Your task to perform on an android device: What's the weather? Image 0: 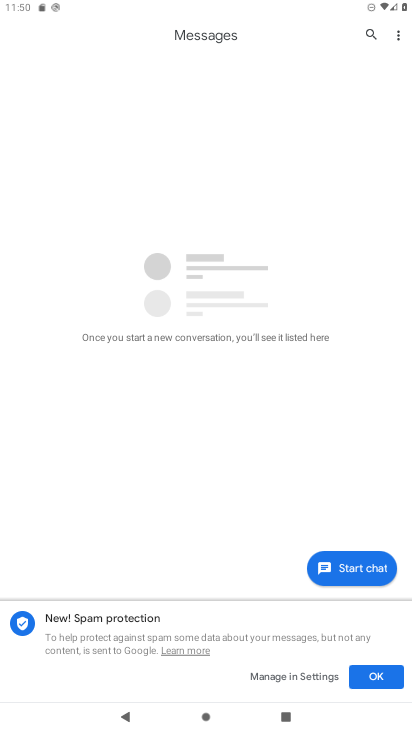
Step 0: press home button
Your task to perform on an android device: What's the weather? Image 1: 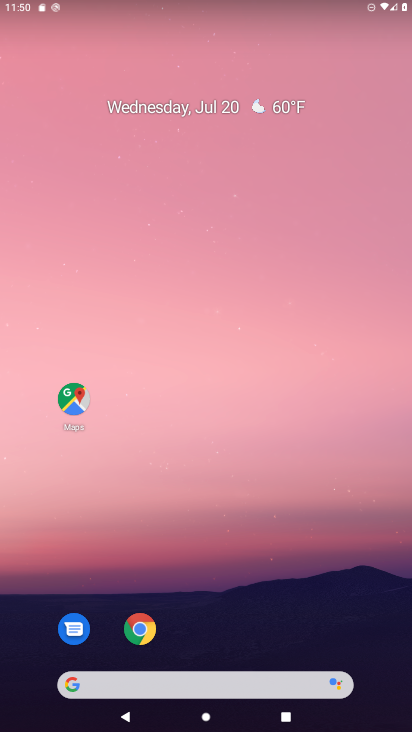
Step 1: drag from (210, 635) to (265, 183)
Your task to perform on an android device: What's the weather? Image 2: 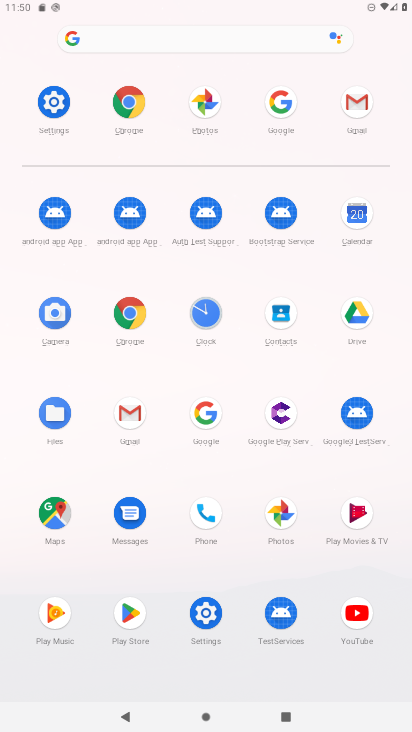
Step 2: click (206, 432)
Your task to perform on an android device: What's the weather? Image 3: 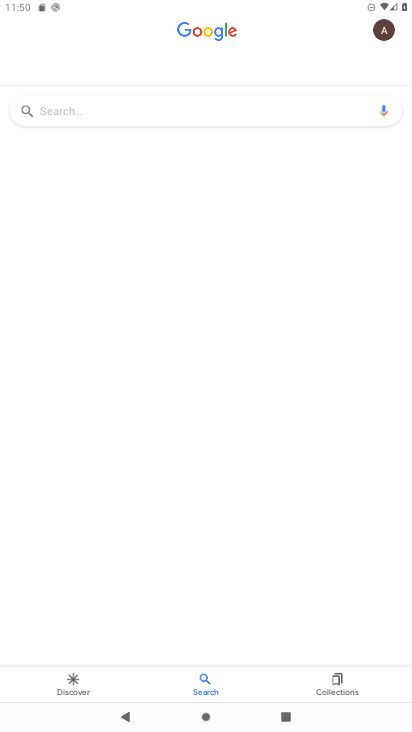
Step 3: drag from (118, 116) to (68, 116)
Your task to perform on an android device: What's the weather? Image 4: 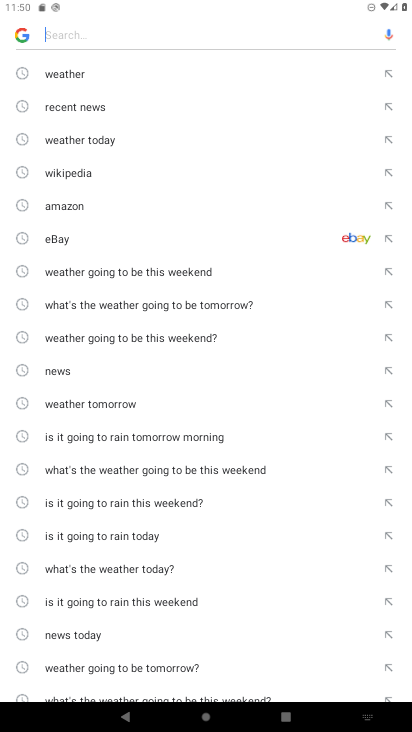
Step 4: click (78, 69)
Your task to perform on an android device: What's the weather? Image 5: 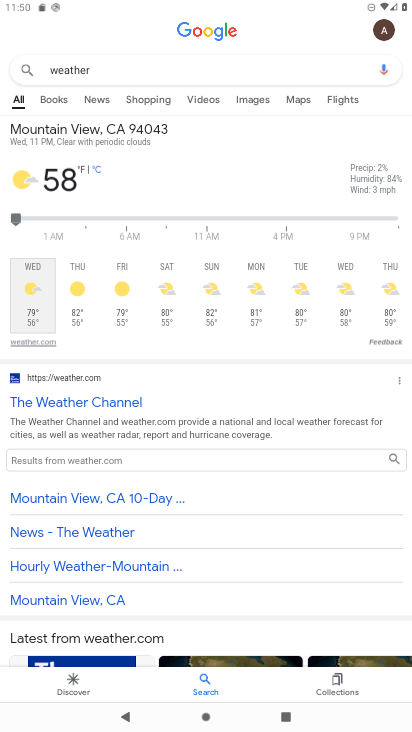
Step 5: task complete